Your task to perform on an android device: Open settings Image 0: 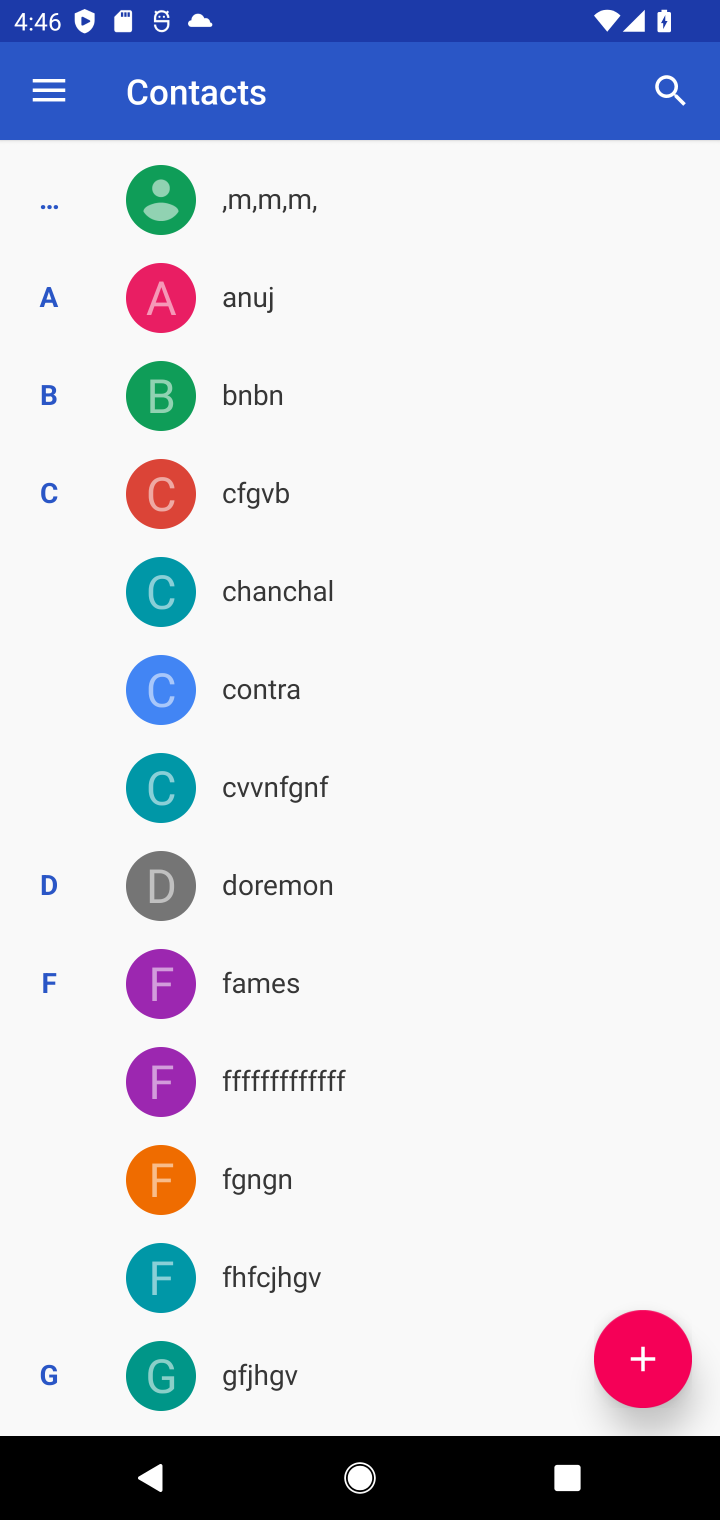
Step 0: press home button
Your task to perform on an android device: Open settings Image 1: 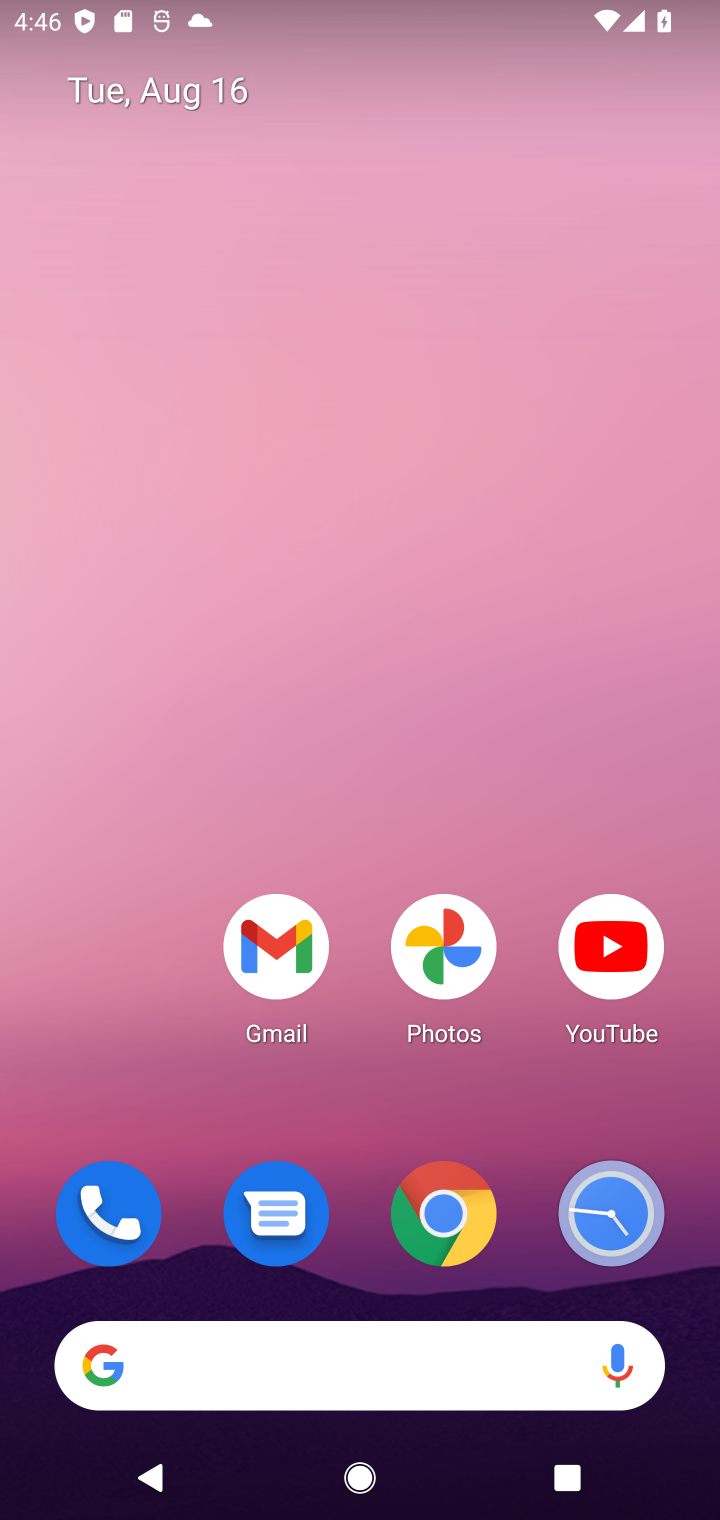
Step 1: drag from (533, 1125) to (566, 8)
Your task to perform on an android device: Open settings Image 2: 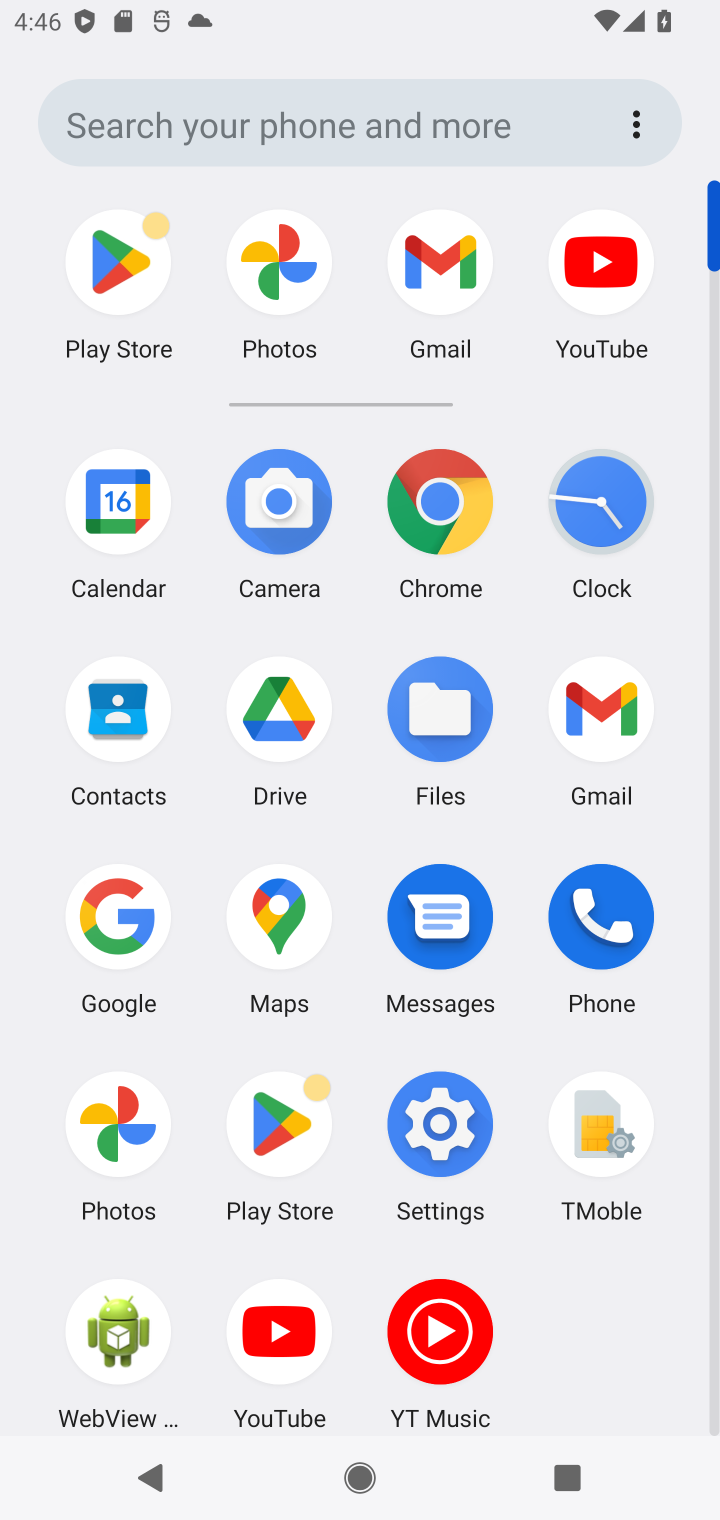
Step 2: click (446, 1107)
Your task to perform on an android device: Open settings Image 3: 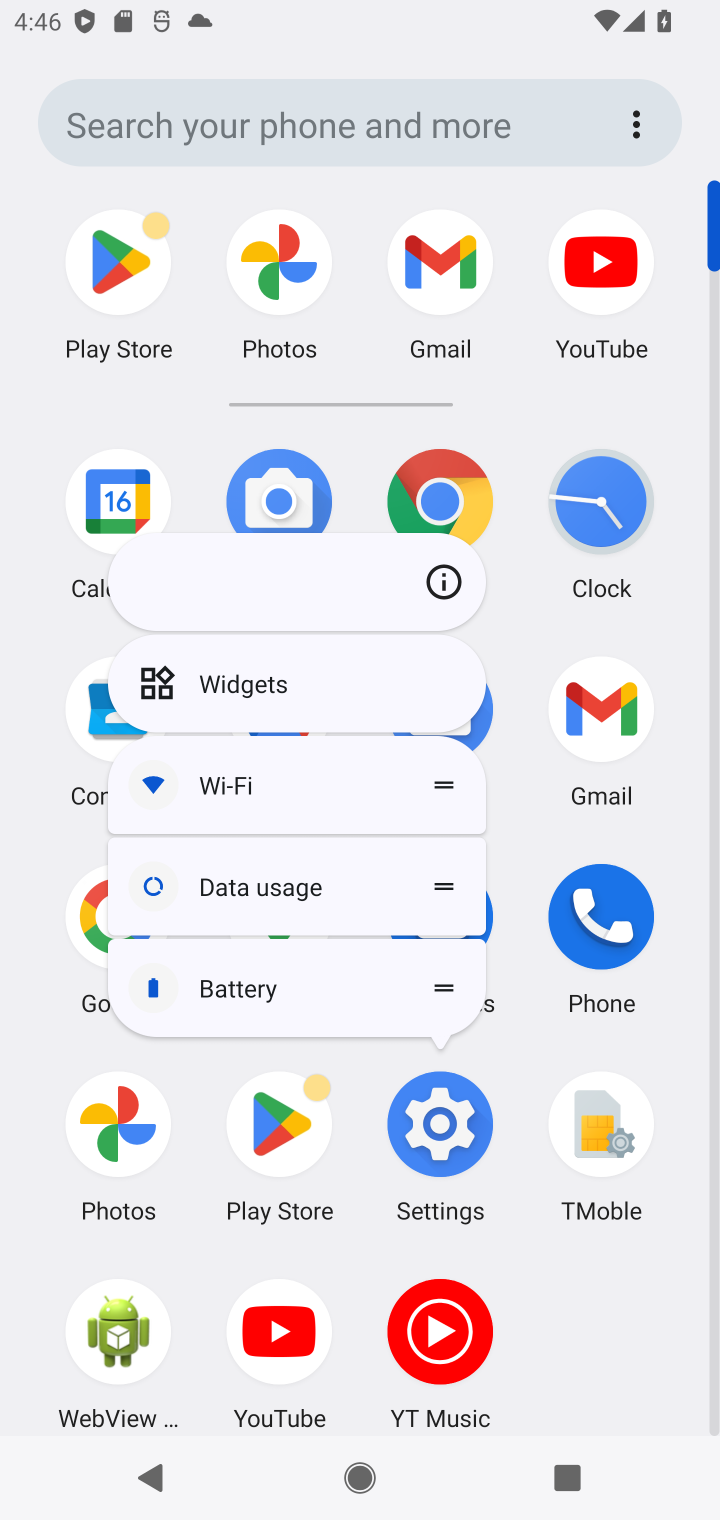
Step 3: click (459, 1104)
Your task to perform on an android device: Open settings Image 4: 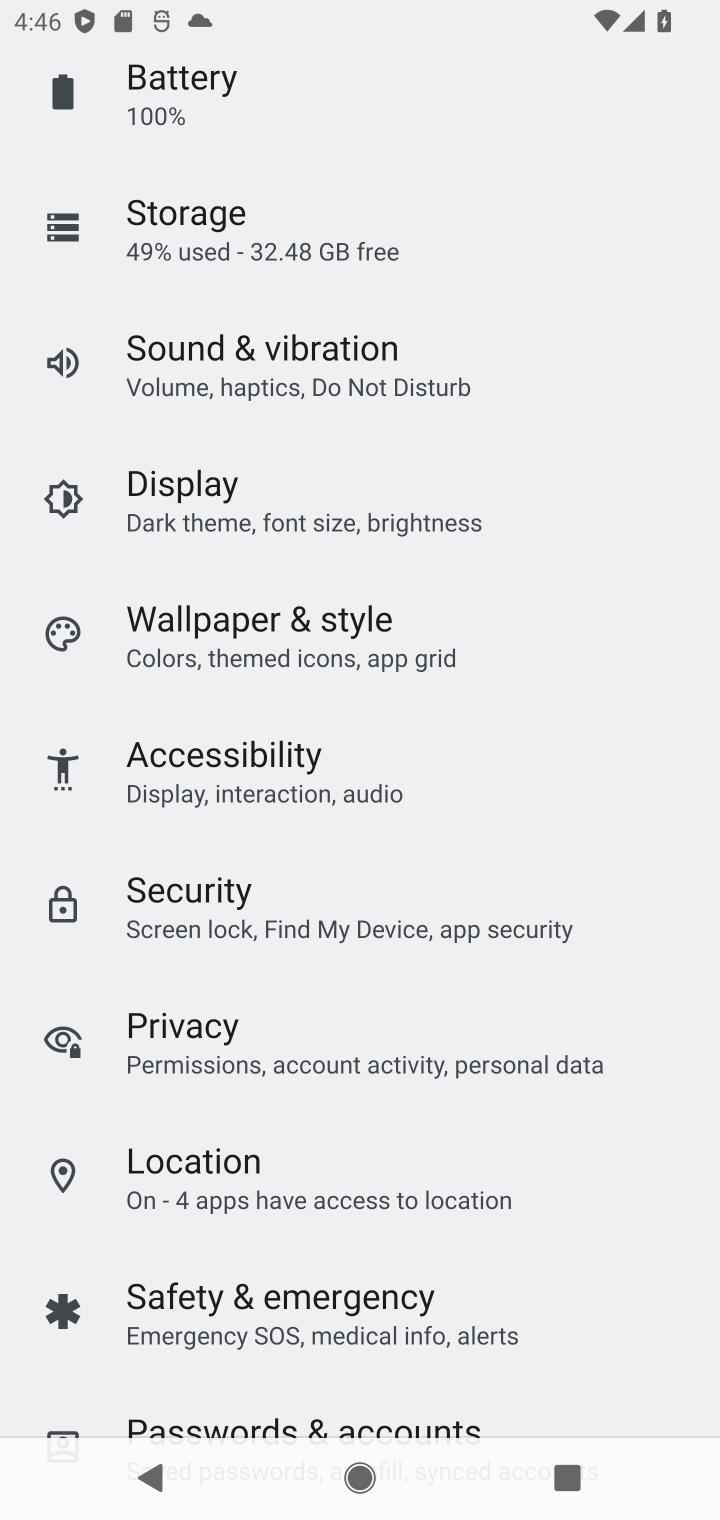
Step 4: task complete